Your task to perform on an android device: change text size in settings app Image 0: 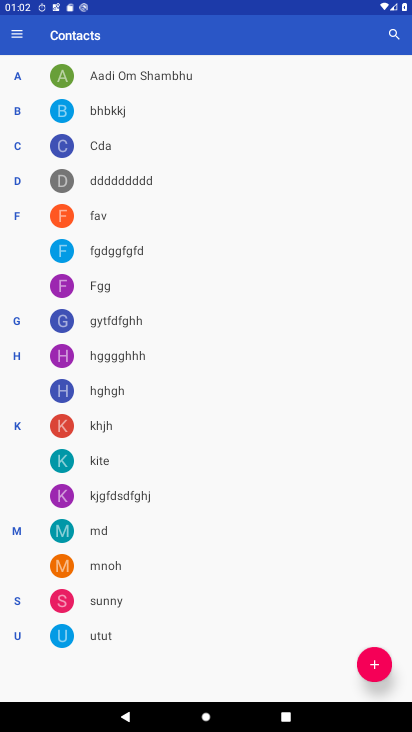
Step 0: press home button
Your task to perform on an android device: change text size in settings app Image 1: 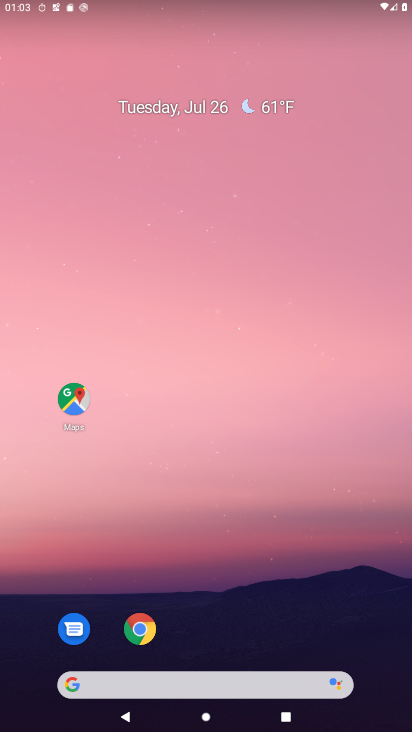
Step 1: drag from (215, 622) to (244, 152)
Your task to perform on an android device: change text size in settings app Image 2: 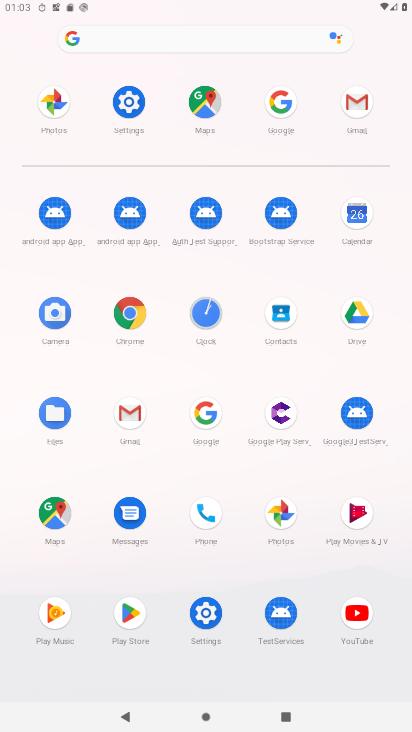
Step 2: click (121, 113)
Your task to perform on an android device: change text size in settings app Image 3: 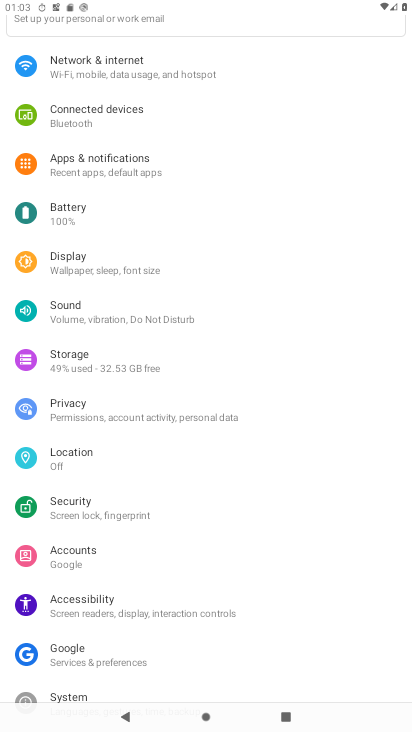
Step 3: click (97, 274)
Your task to perform on an android device: change text size in settings app Image 4: 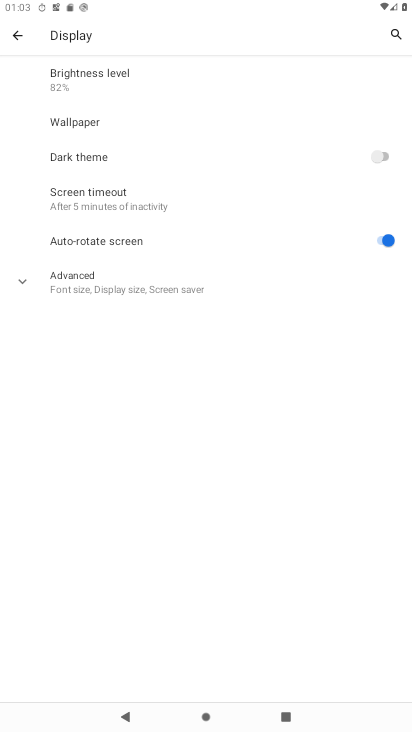
Step 4: click (101, 274)
Your task to perform on an android device: change text size in settings app Image 5: 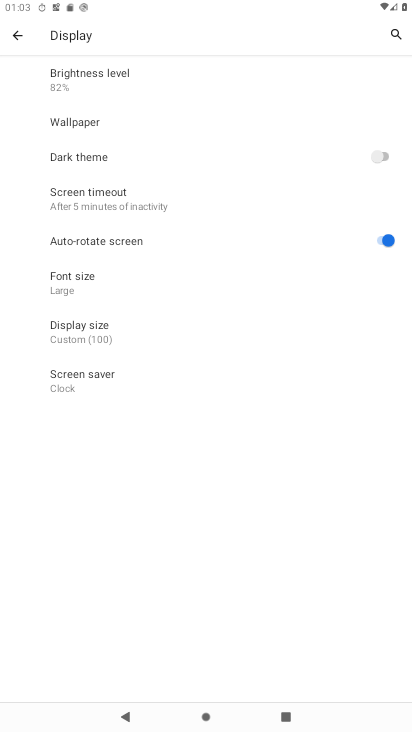
Step 5: click (100, 274)
Your task to perform on an android device: change text size in settings app Image 6: 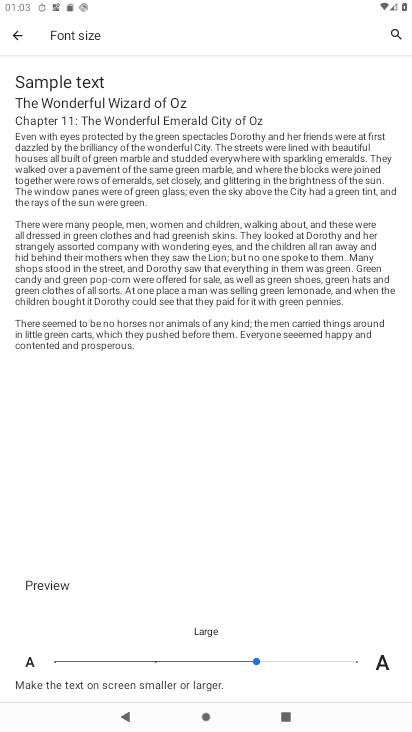
Step 6: click (358, 657)
Your task to perform on an android device: change text size in settings app Image 7: 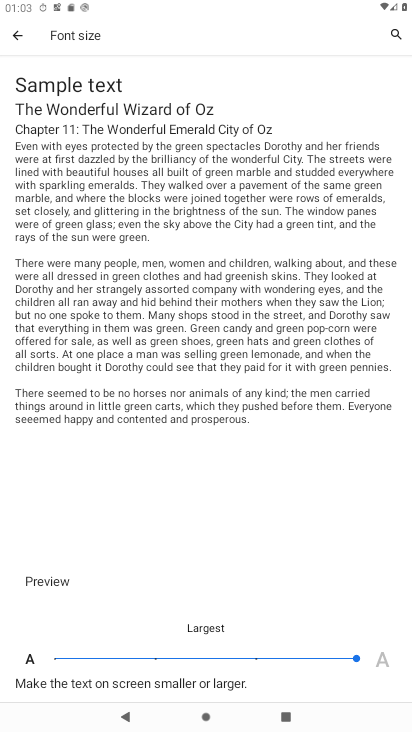
Step 7: task complete